Your task to perform on an android device: allow notifications from all sites in the chrome app Image 0: 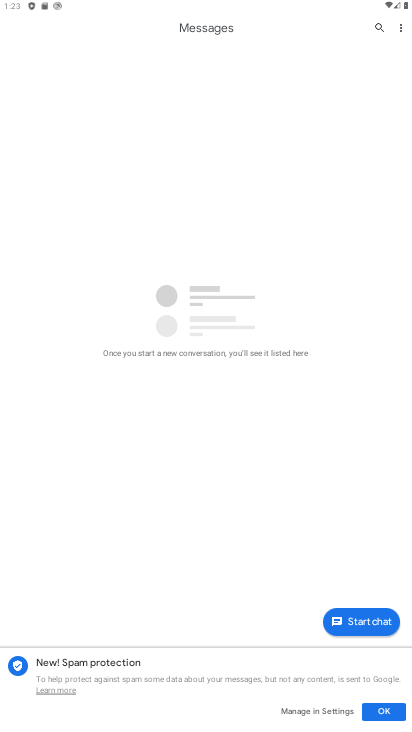
Step 0: press home button
Your task to perform on an android device: allow notifications from all sites in the chrome app Image 1: 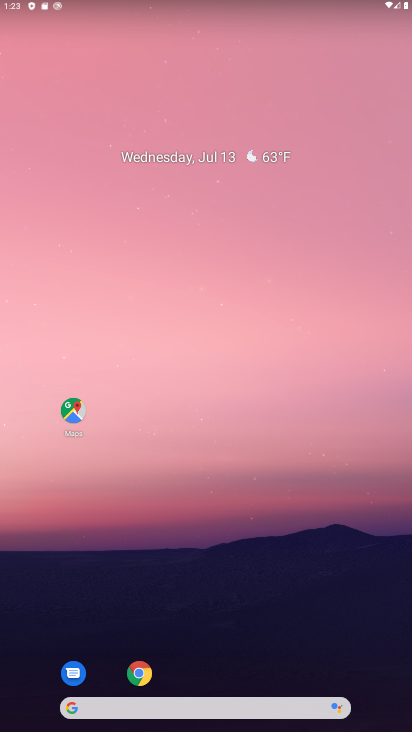
Step 1: drag from (258, 689) to (255, 236)
Your task to perform on an android device: allow notifications from all sites in the chrome app Image 2: 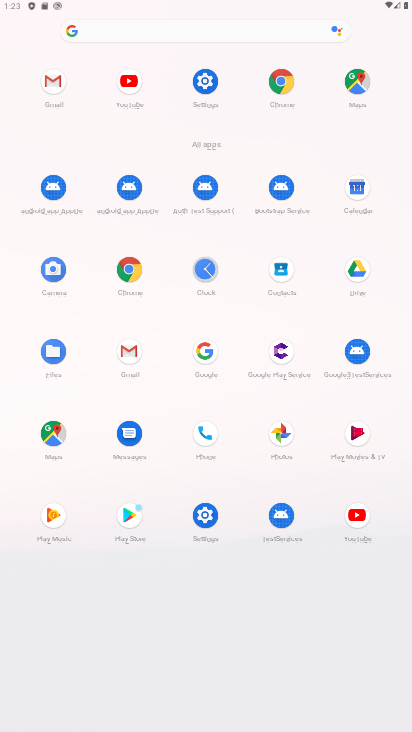
Step 2: click (275, 81)
Your task to perform on an android device: allow notifications from all sites in the chrome app Image 3: 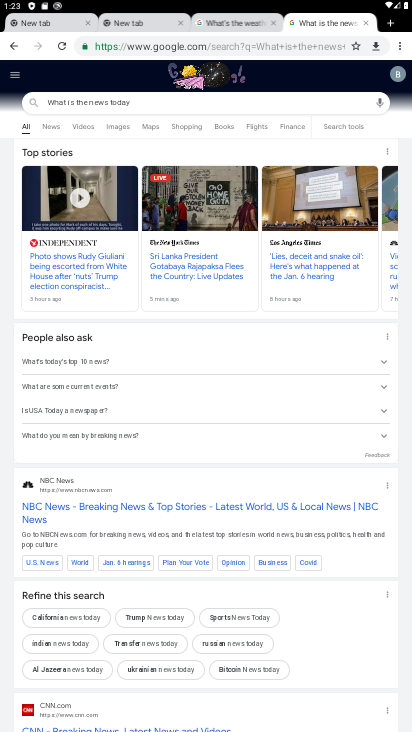
Step 3: click (402, 50)
Your task to perform on an android device: allow notifications from all sites in the chrome app Image 4: 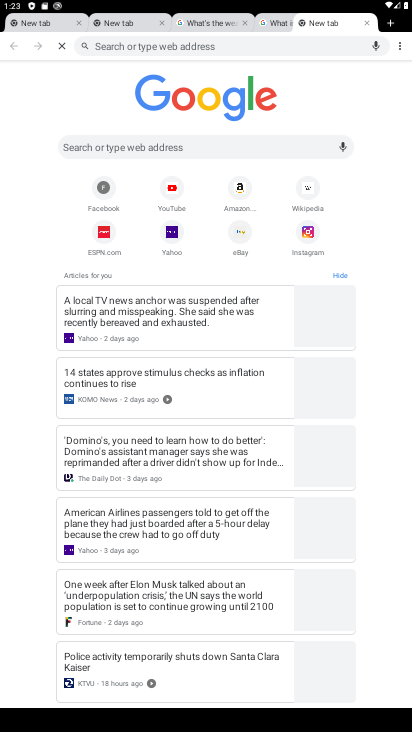
Step 4: click (400, 46)
Your task to perform on an android device: allow notifications from all sites in the chrome app Image 5: 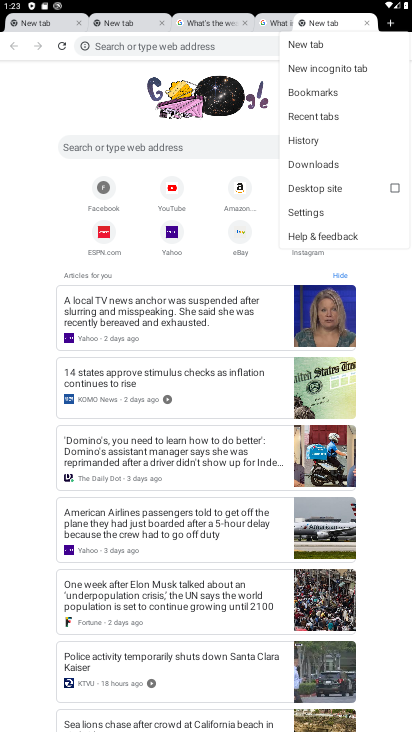
Step 5: click (318, 208)
Your task to perform on an android device: allow notifications from all sites in the chrome app Image 6: 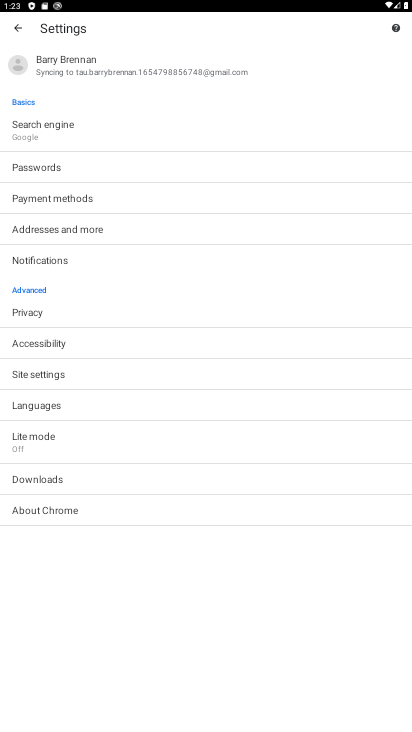
Step 6: click (103, 372)
Your task to perform on an android device: allow notifications from all sites in the chrome app Image 7: 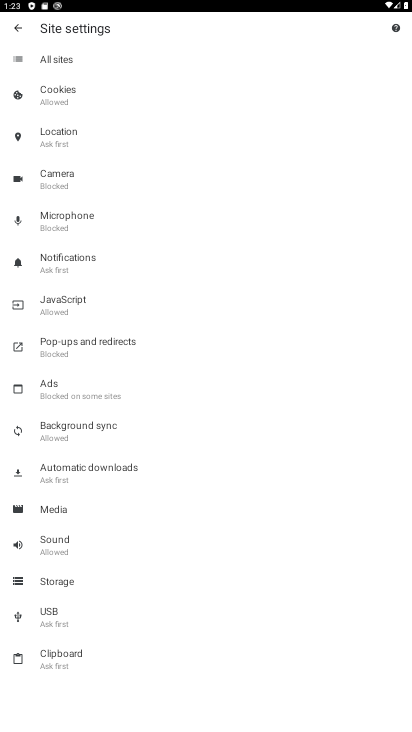
Step 7: click (56, 95)
Your task to perform on an android device: allow notifications from all sites in the chrome app Image 8: 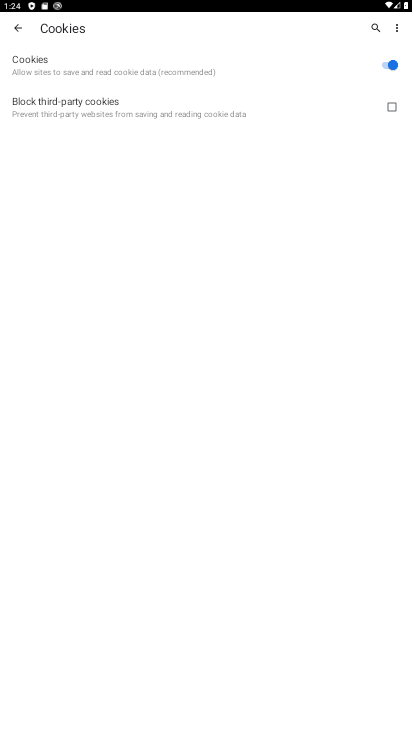
Step 8: click (16, 31)
Your task to perform on an android device: allow notifications from all sites in the chrome app Image 9: 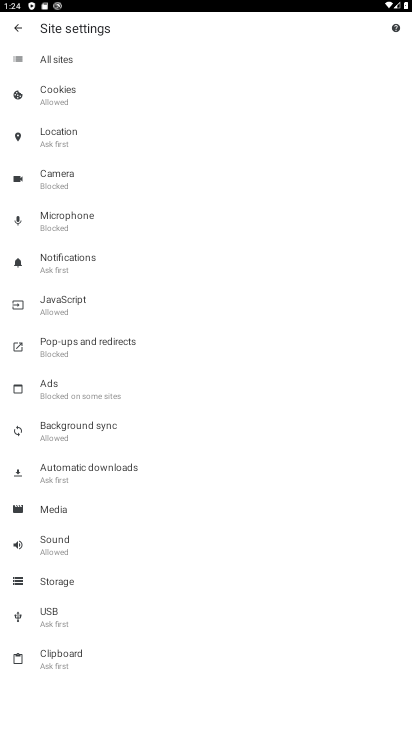
Step 9: click (84, 290)
Your task to perform on an android device: allow notifications from all sites in the chrome app Image 10: 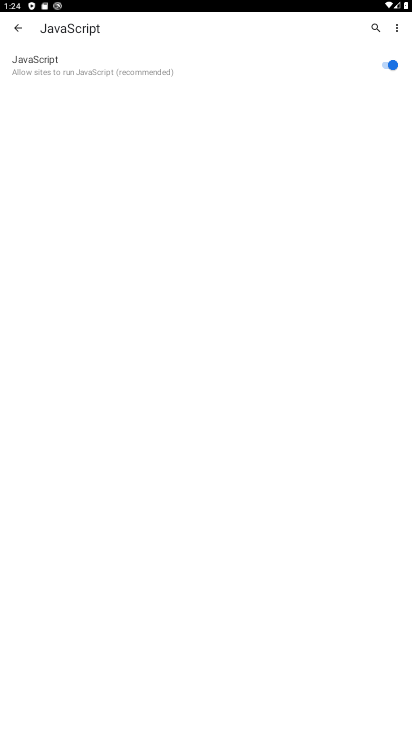
Step 10: click (14, 36)
Your task to perform on an android device: allow notifications from all sites in the chrome app Image 11: 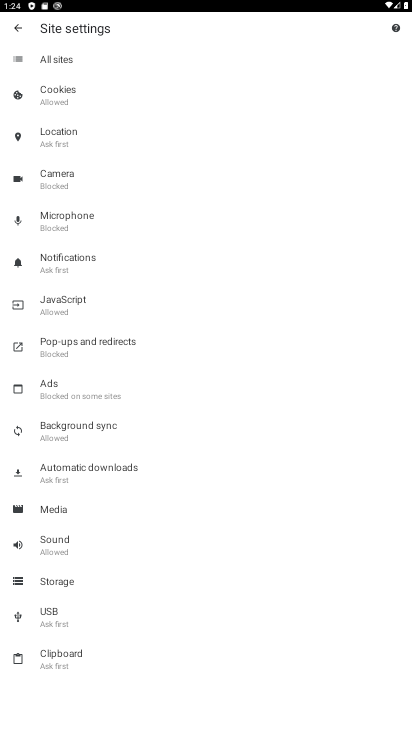
Step 11: task complete